Your task to perform on an android device: turn notification dots off Image 0: 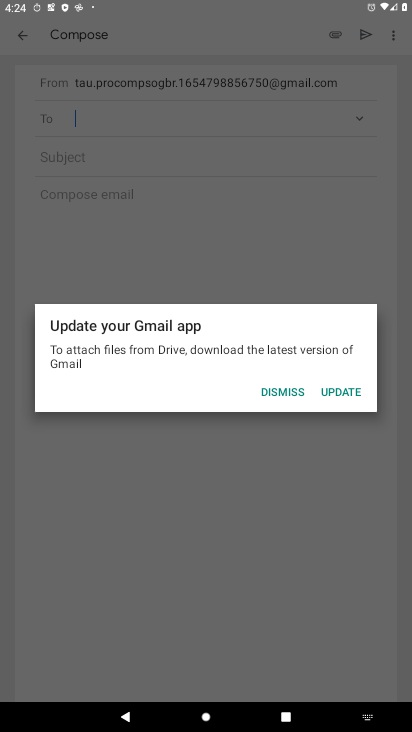
Step 0: press home button
Your task to perform on an android device: turn notification dots off Image 1: 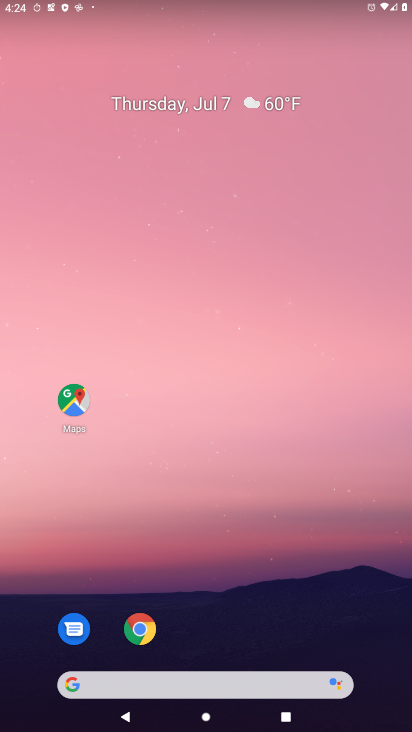
Step 1: drag from (189, 590) to (127, 68)
Your task to perform on an android device: turn notification dots off Image 2: 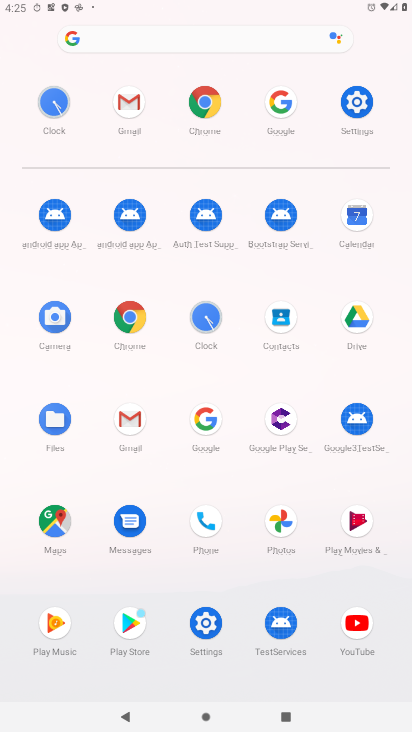
Step 2: click (351, 101)
Your task to perform on an android device: turn notification dots off Image 3: 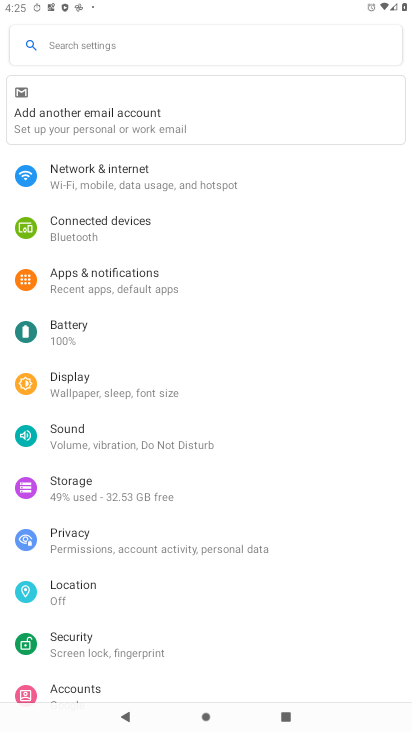
Step 3: click (121, 291)
Your task to perform on an android device: turn notification dots off Image 4: 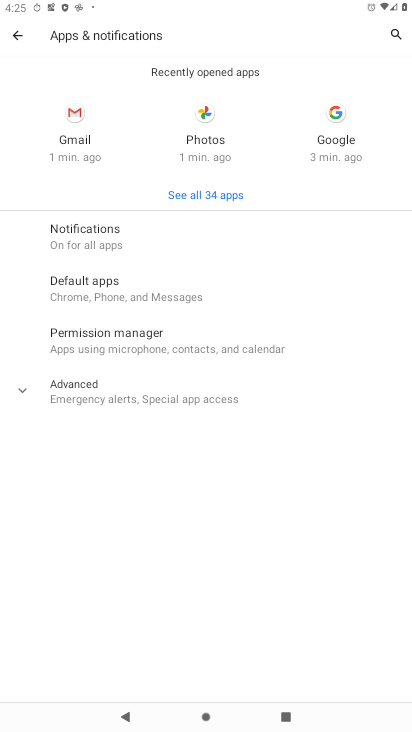
Step 4: click (88, 240)
Your task to perform on an android device: turn notification dots off Image 5: 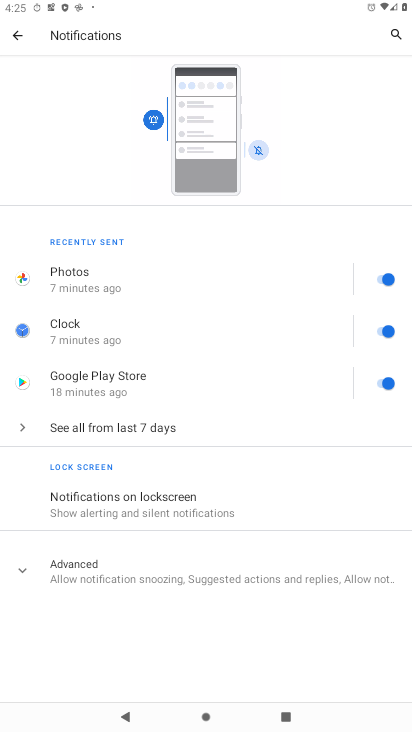
Step 5: click (157, 492)
Your task to perform on an android device: turn notification dots off Image 6: 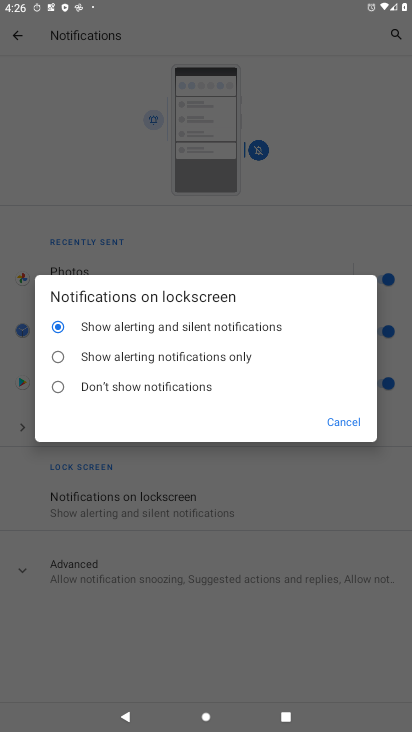
Step 6: click (346, 421)
Your task to perform on an android device: turn notification dots off Image 7: 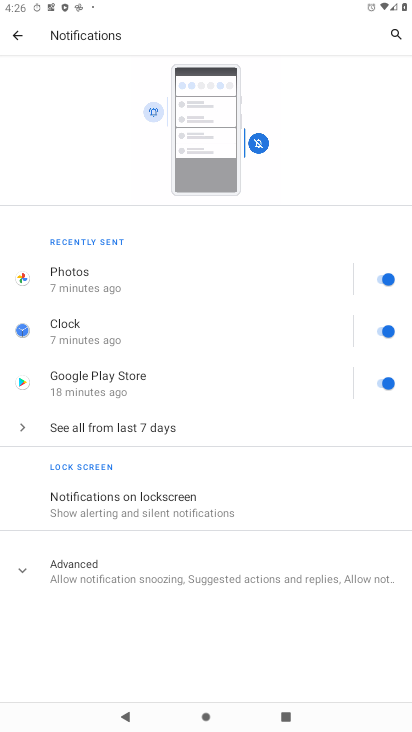
Step 7: click (166, 581)
Your task to perform on an android device: turn notification dots off Image 8: 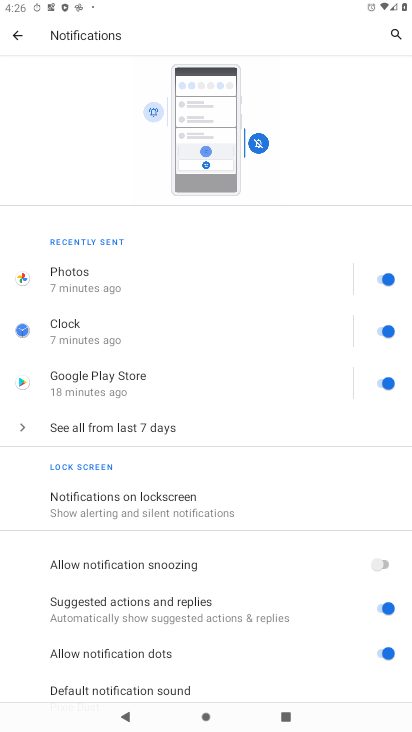
Step 8: drag from (156, 599) to (157, 540)
Your task to perform on an android device: turn notification dots off Image 9: 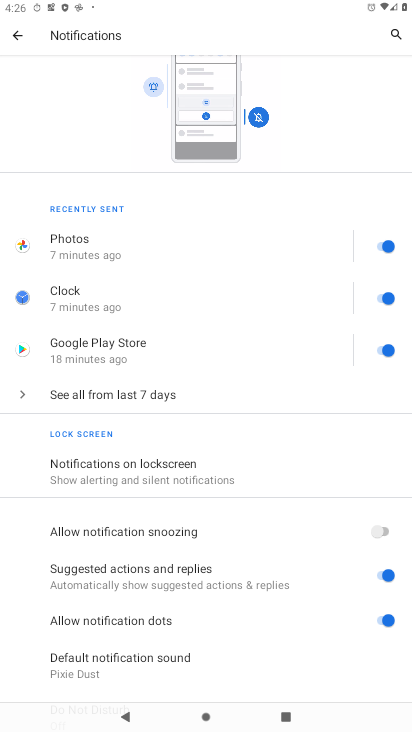
Step 9: click (380, 628)
Your task to perform on an android device: turn notification dots off Image 10: 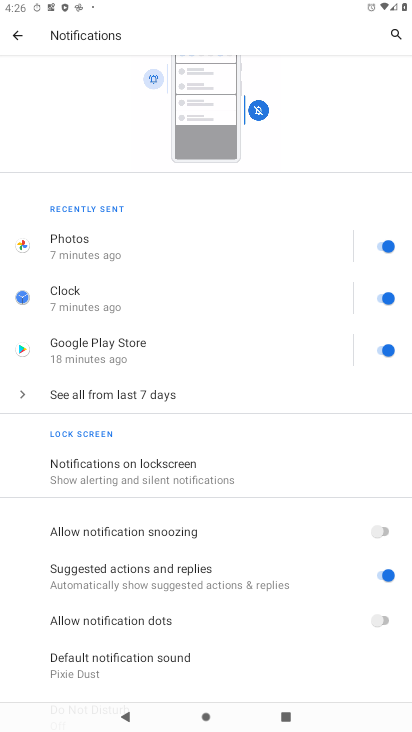
Step 10: task complete